Your task to perform on an android device: Open my contact list Image 0: 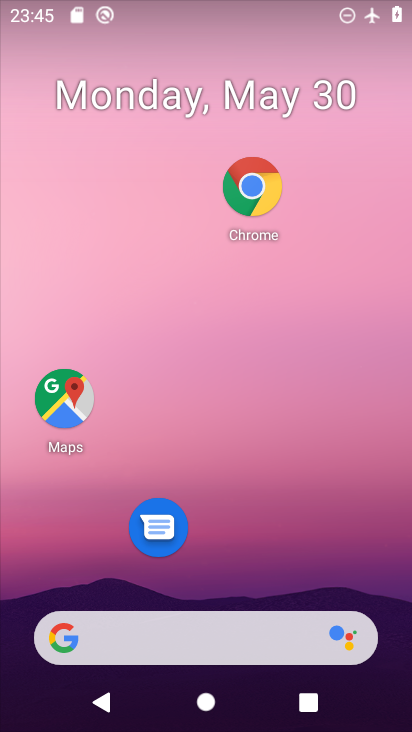
Step 0: drag from (229, 542) to (269, 117)
Your task to perform on an android device: Open my contact list Image 1: 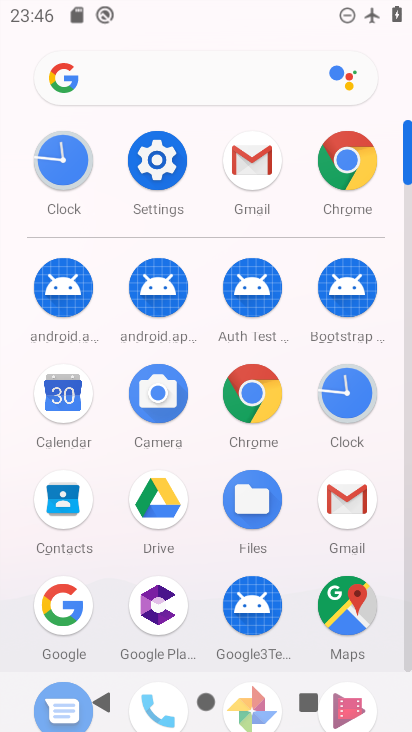
Step 1: drag from (190, 610) to (223, 293)
Your task to perform on an android device: Open my contact list Image 2: 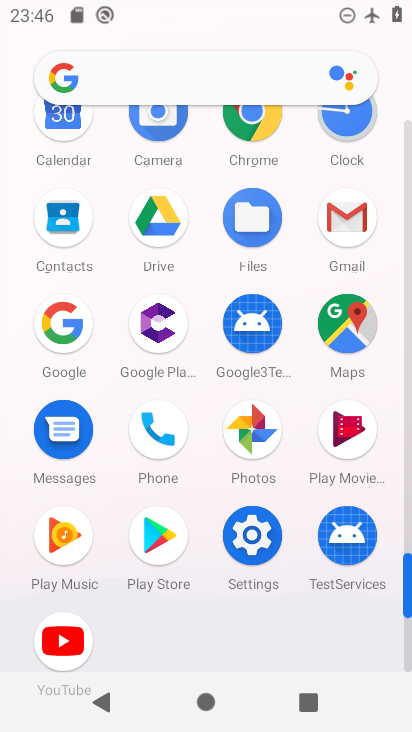
Step 2: drag from (188, 233) to (189, 602)
Your task to perform on an android device: Open my contact list Image 3: 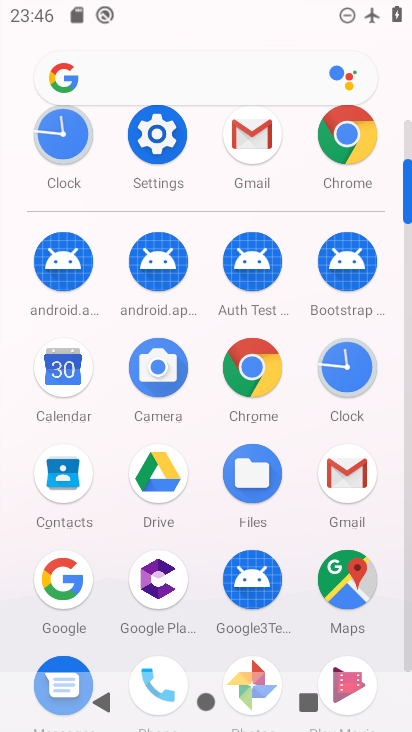
Step 3: drag from (185, 640) to (203, 464)
Your task to perform on an android device: Open my contact list Image 4: 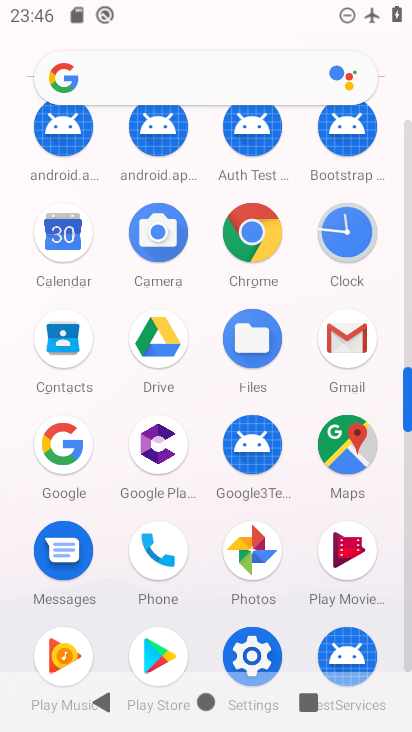
Step 4: click (163, 545)
Your task to perform on an android device: Open my contact list Image 5: 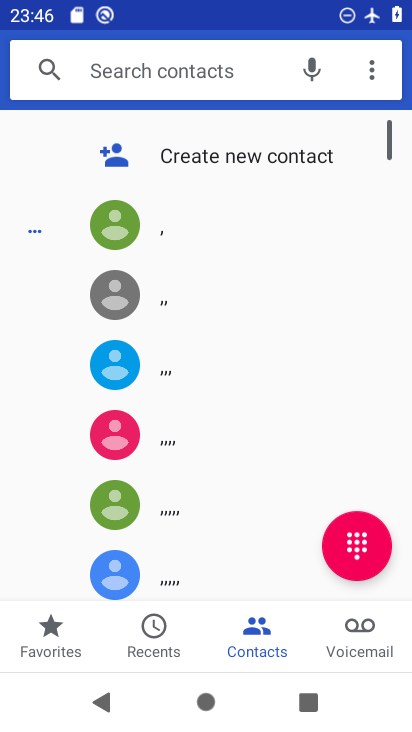
Step 5: click (249, 157)
Your task to perform on an android device: Open my contact list Image 6: 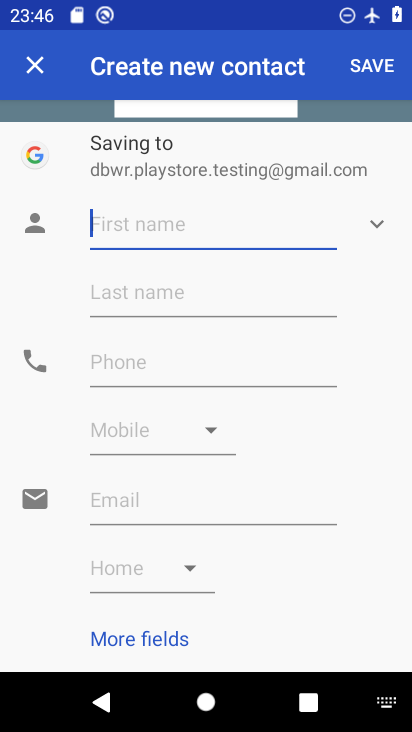
Step 6: click (189, 220)
Your task to perform on an android device: Open my contact list Image 7: 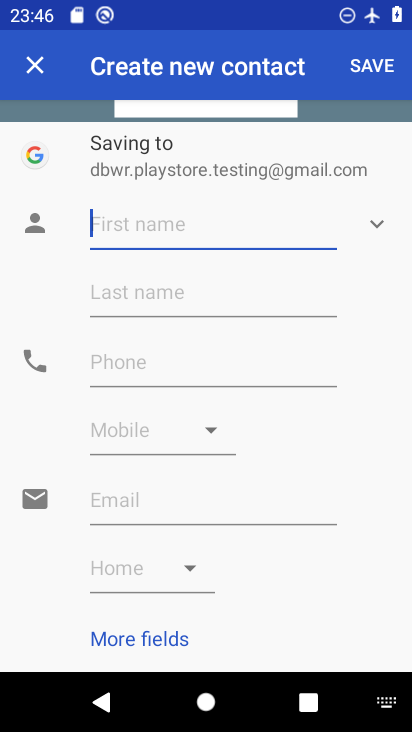
Step 7: type "kakakkajsjsjjsu"
Your task to perform on an android device: Open my contact list Image 8: 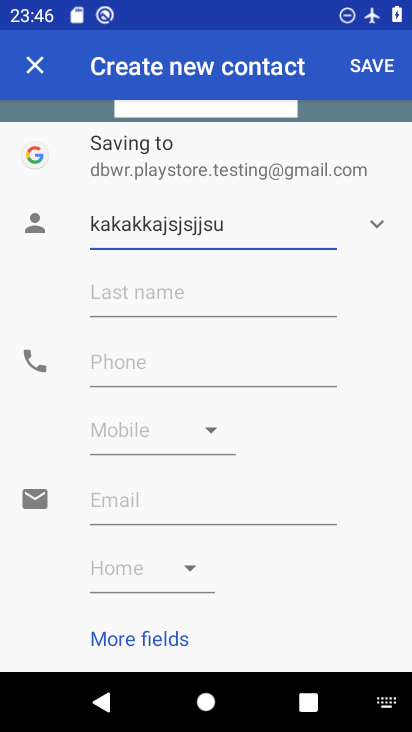
Step 8: click (160, 357)
Your task to perform on an android device: Open my contact list Image 9: 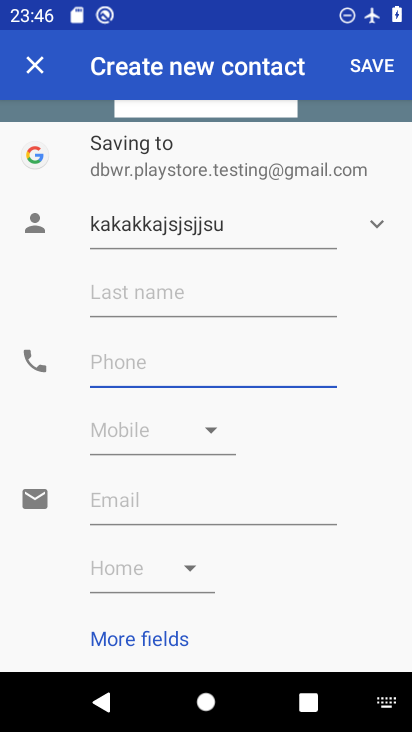
Step 9: type "01919920299210292"
Your task to perform on an android device: Open my contact list Image 10: 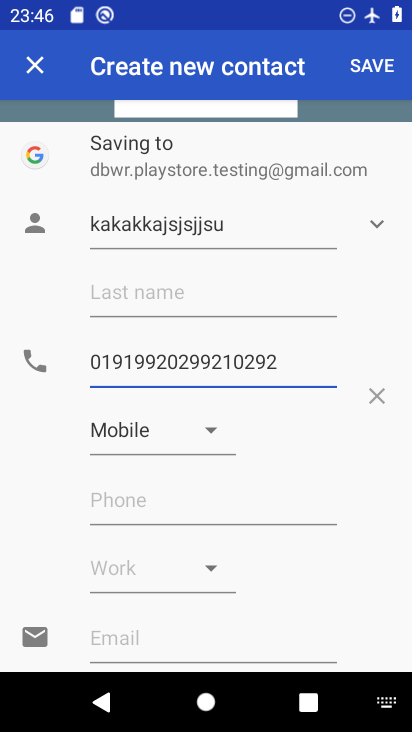
Step 10: click (378, 67)
Your task to perform on an android device: Open my contact list Image 11: 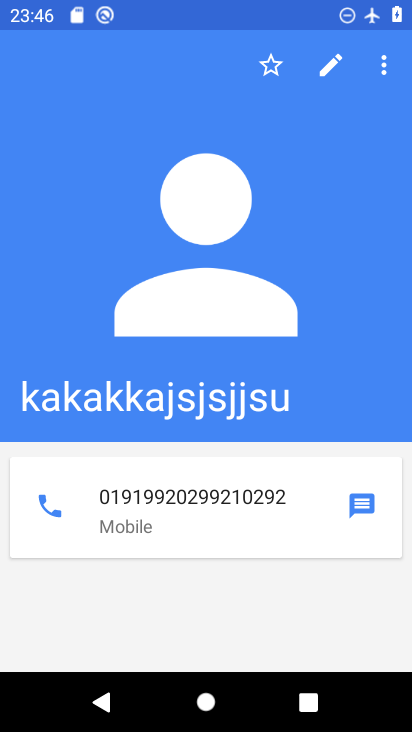
Step 11: task complete